Your task to perform on an android device: turn off wifi Image 0: 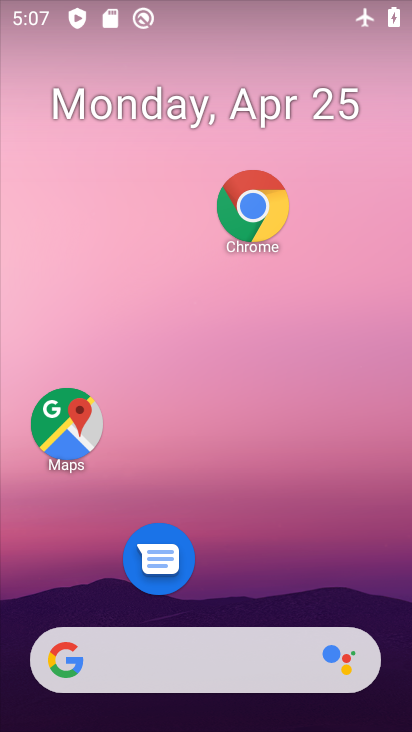
Step 0: drag from (287, 559) to (205, 181)
Your task to perform on an android device: turn off wifi Image 1: 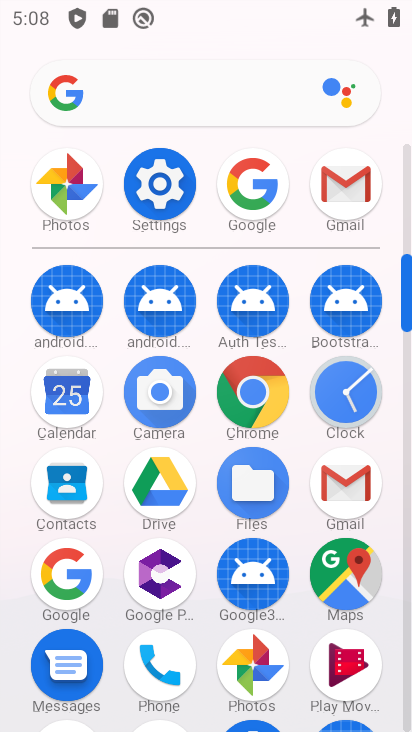
Step 1: click (157, 196)
Your task to perform on an android device: turn off wifi Image 2: 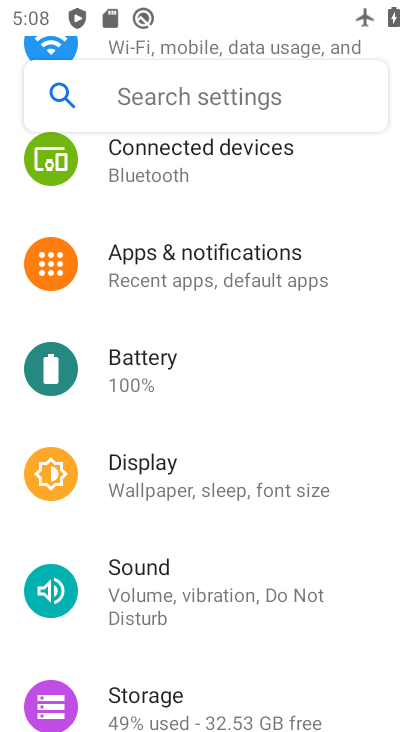
Step 2: drag from (163, 312) to (161, 566)
Your task to perform on an android device: turn off wifi Image 3: 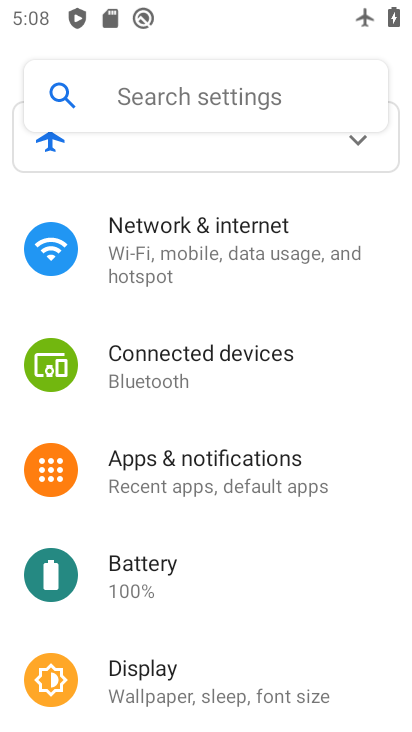
Step 3: click (182, 239)
Your task to perform on an android device: turn off wifi Image 4: 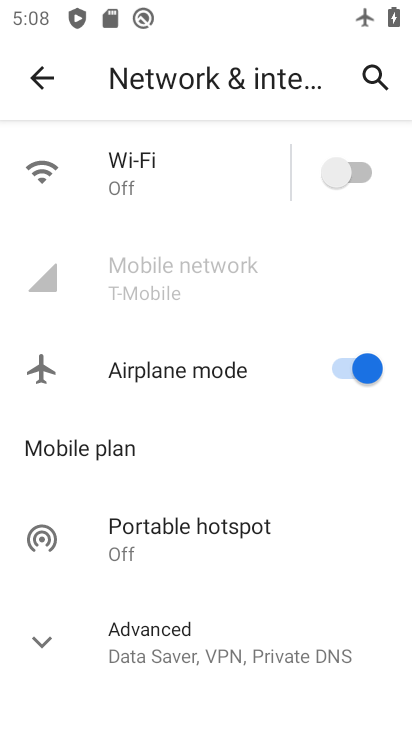
Step 4: task complete